Your task to perform on an android device: delete browsing data in the chrome app Image 0: 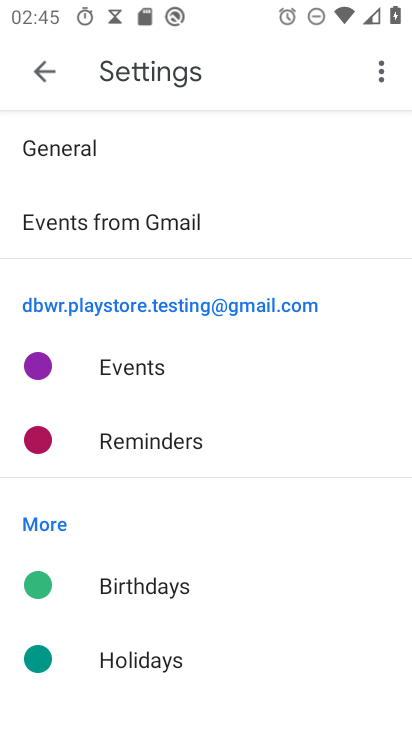
Step 0: press home button
Your task to perform on an android device: delete browsing data in the chrome app Image 1: 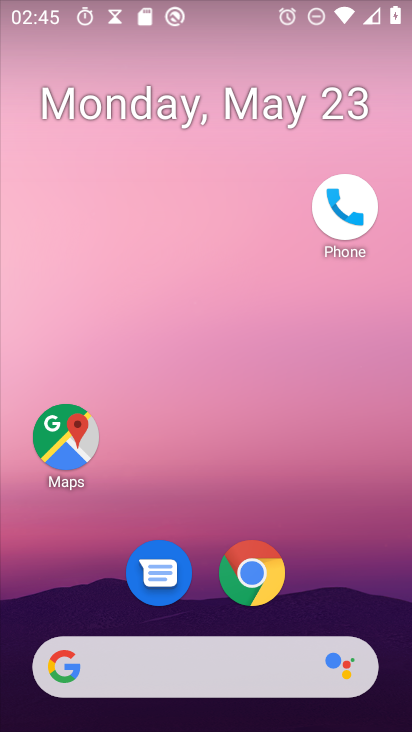
Step 1: click (261, 574)
Your task to perform on an android device: delete browsing data in the chrome app Image 2: 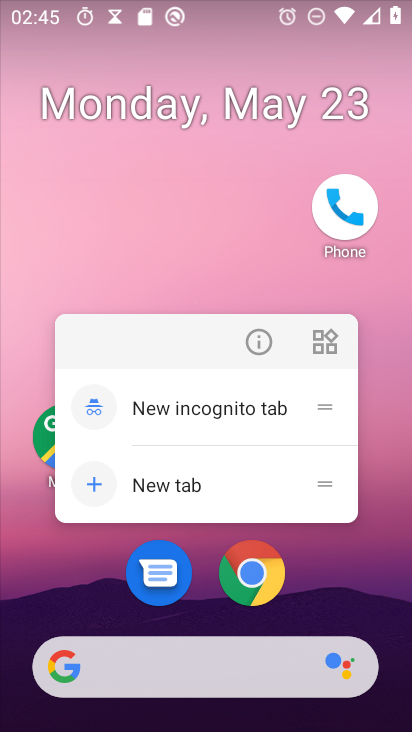
Step 2: click (265, 581)
Your task to perform on an android device: delete browsing data in the chrome app Image 3: 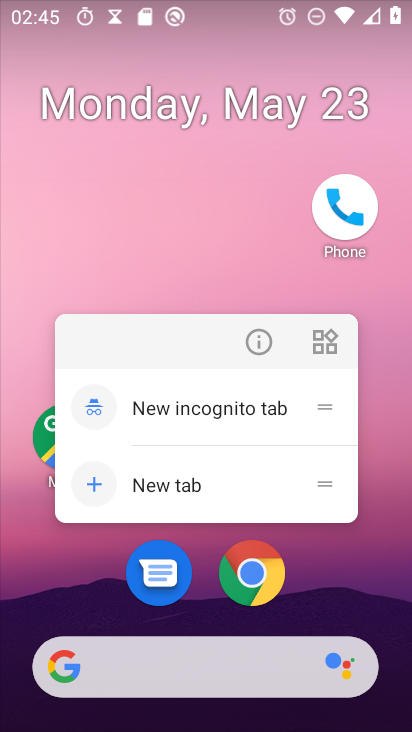
Step 3: click (254, 583)
Your task to perform on an android device: delete browsing data in the chrome app Image 4: 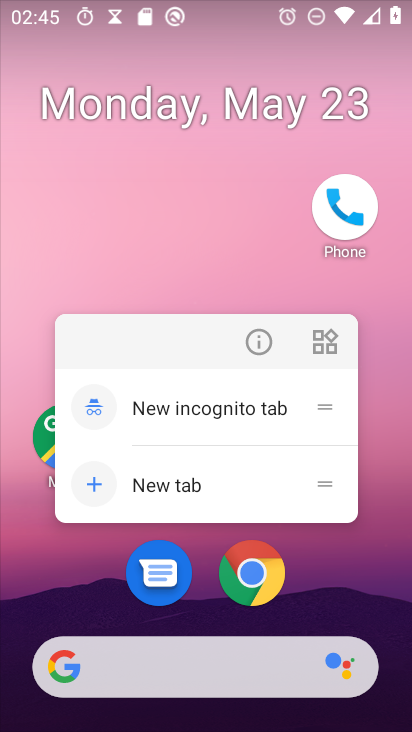
Step 4: click (246, 572)
Your task to perform on an android device: delete browsing data in the chrome app Image 5: 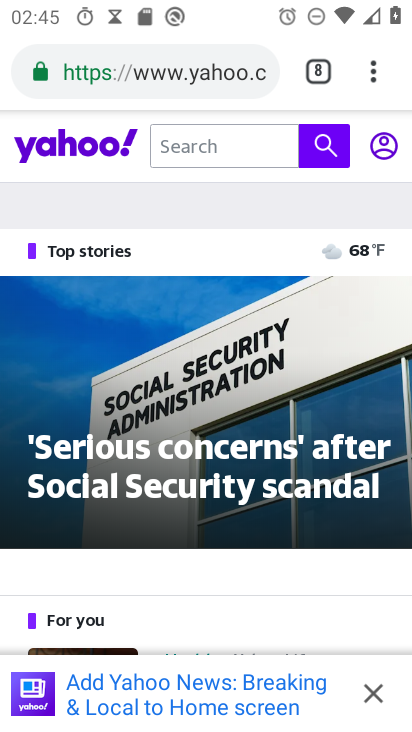
Step 5: drag from (378, 82) to (223, 547)
Your task to perform on an android device: delete browsing data in the chrome app Image 6: 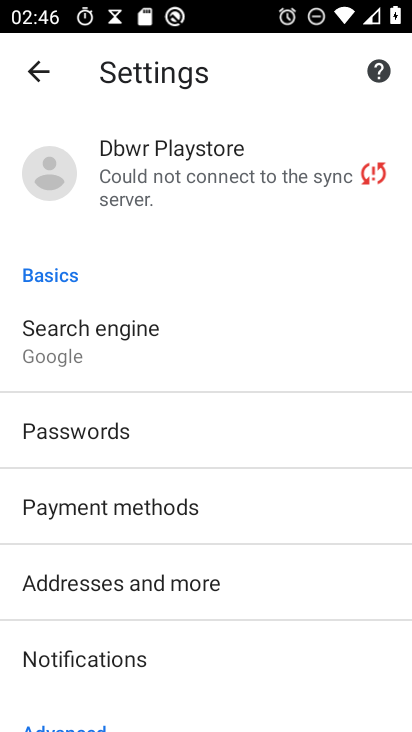
Step 6: drag from (230, 619) to (317, 288)
Your task to perform on an android device: delete browsing data in the chrome app Image 7: 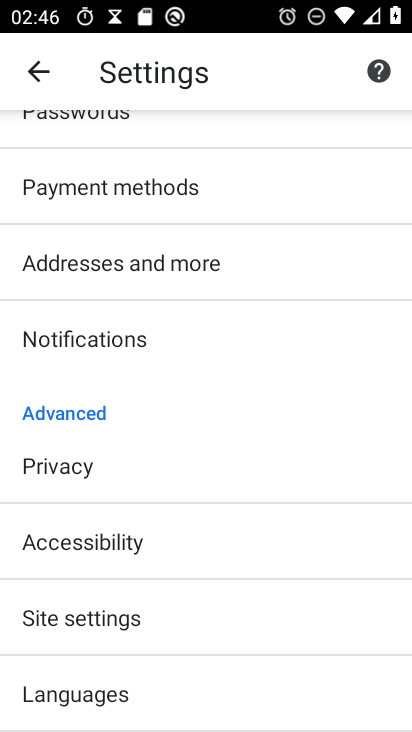
Step 7: click (82, 467)
Your task to perform on an android device: delete browsing data in the chrome app Image 8: 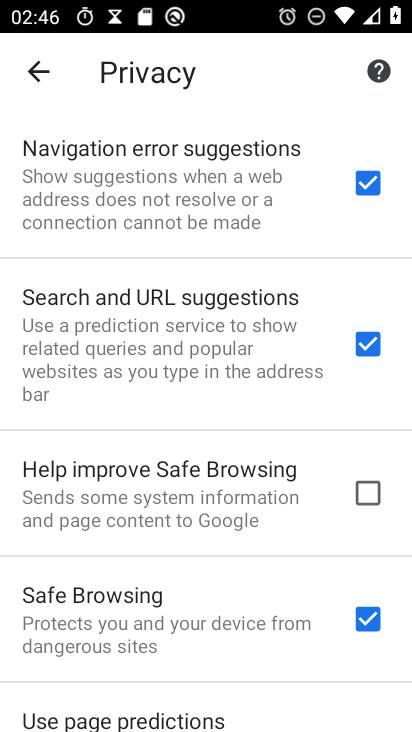
Step 8: drag from (166, 619) to (335, 223)
Your task to perform on an android device: delete browsing data in the chrome app Image 9: 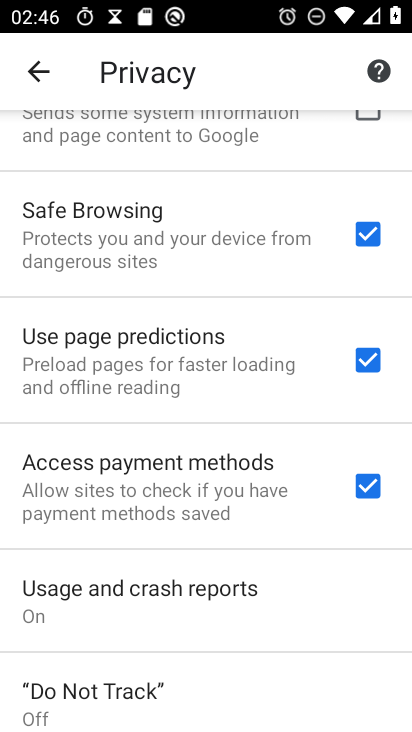
Step 9: drag from (292, 585) to (342, 242)
Your task to perform on an android device: delete browsing data in the chrome app Image 10: 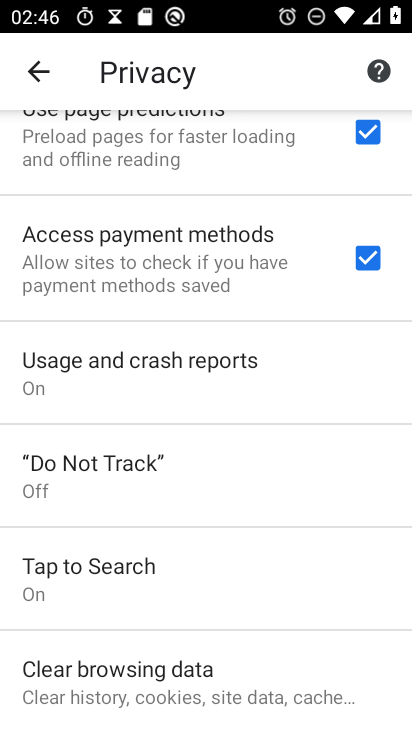
Step 10: click (257, 676)
Your task to perform on an android device: delete browsing data in the chrome app Image 11: 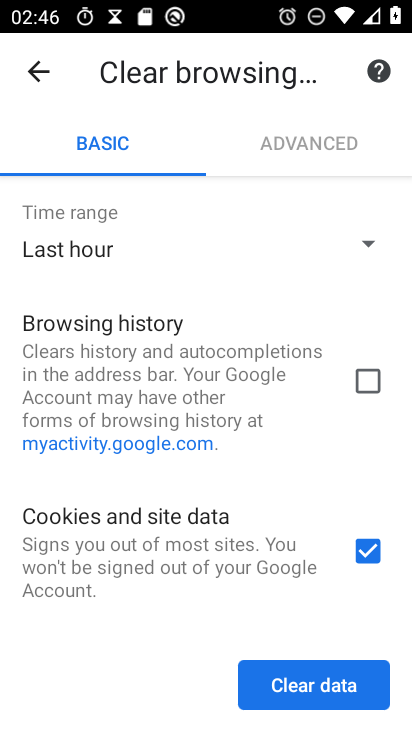
Step 11: click (363, 389)
Your task to perform on an android device: delete browsing data in the chrome app Image 12: 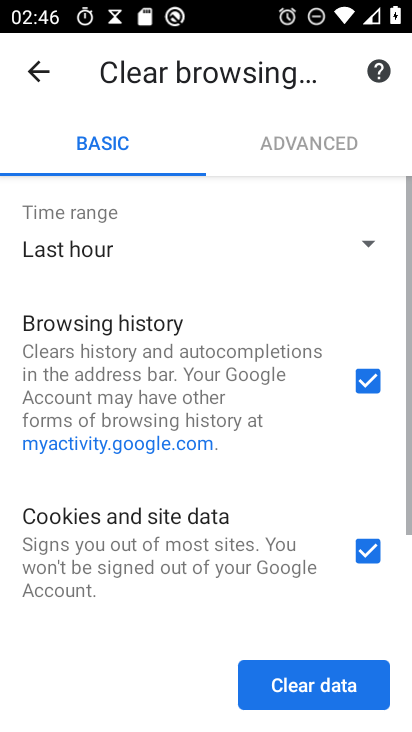
Step 12: drag from (164, 596) to (307, 281)
Your task to perform on an android device: delete browsing data in the chrome app Image 13: 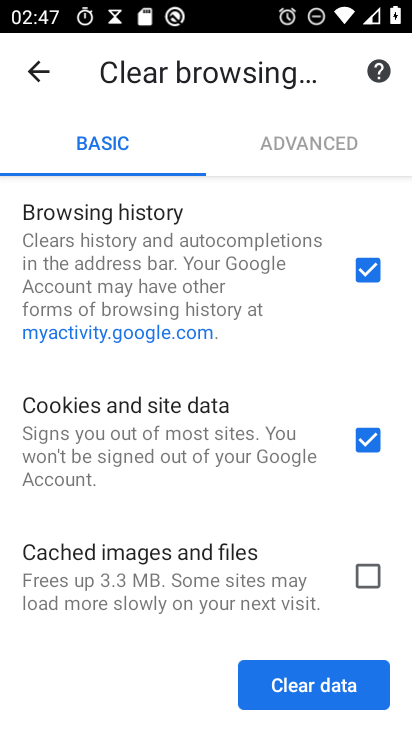
Step 13: click (366, 573)
Your task to perform on an android device: delete browsing data in the chrome app Image 14: 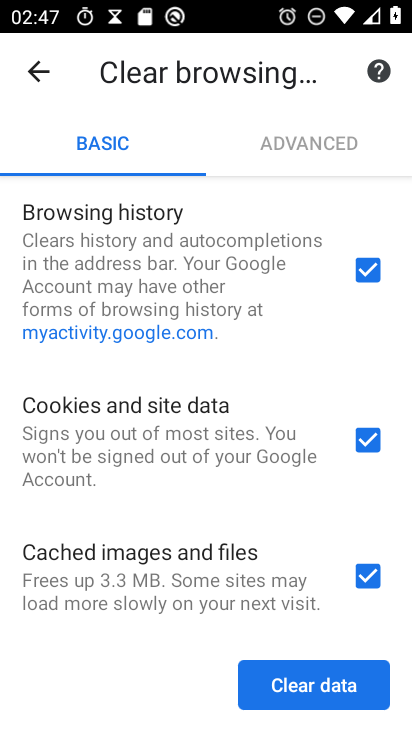
Step 14: click (310, 685)
Your task to perform on an android device: delete browsing data in the chrome app Image 15: 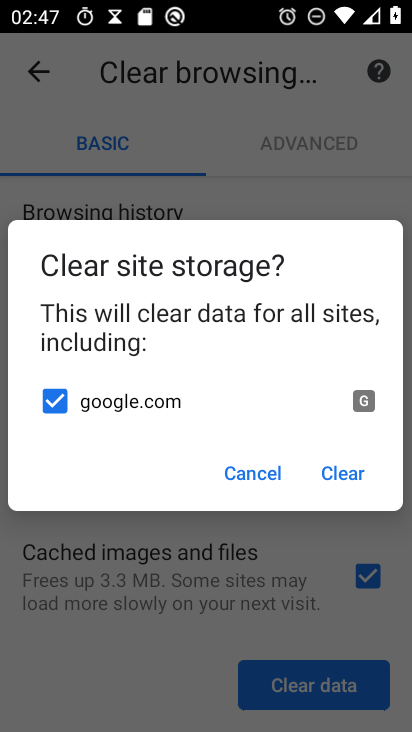
Step 15: click (346, 466)
Your task to perform on an android device: delete browsing data in the chrome app Image 16: 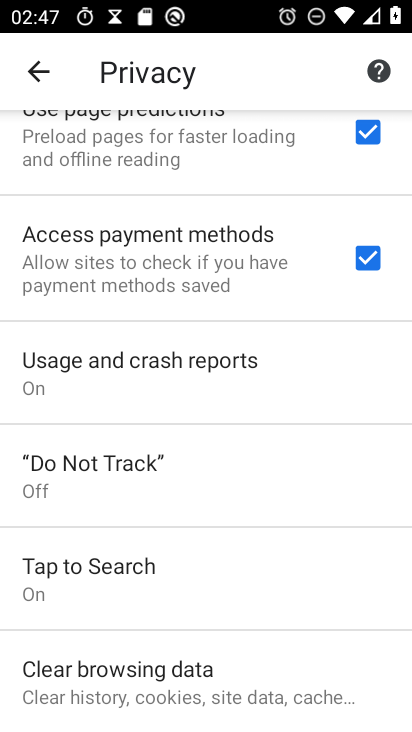
Step 16: task complete